Your task to perform on an android device: move a message to another label in the gmail app Image 0: 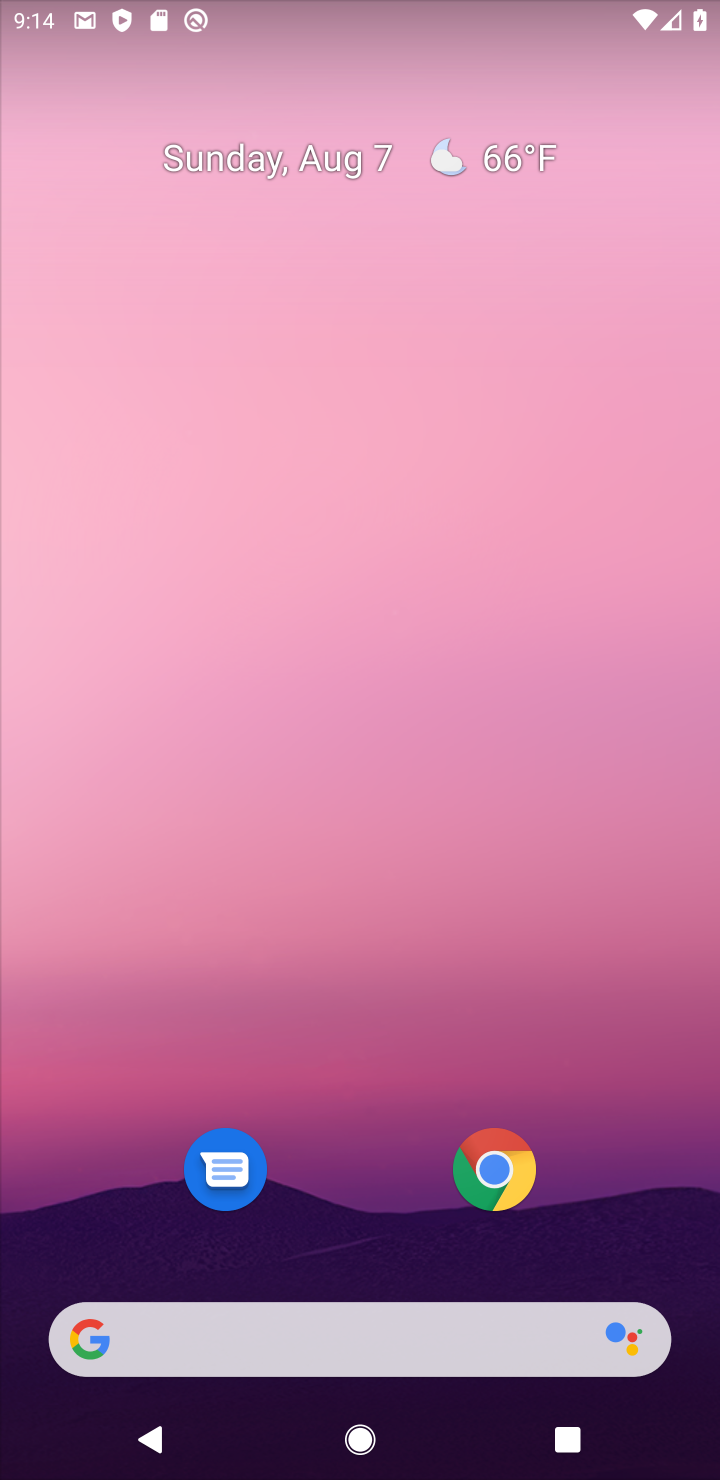
Step 0: drag from (408, 1247) to (258, 206)
Your task to perform on an android device: move a message to another label in the gmail app Image 1: 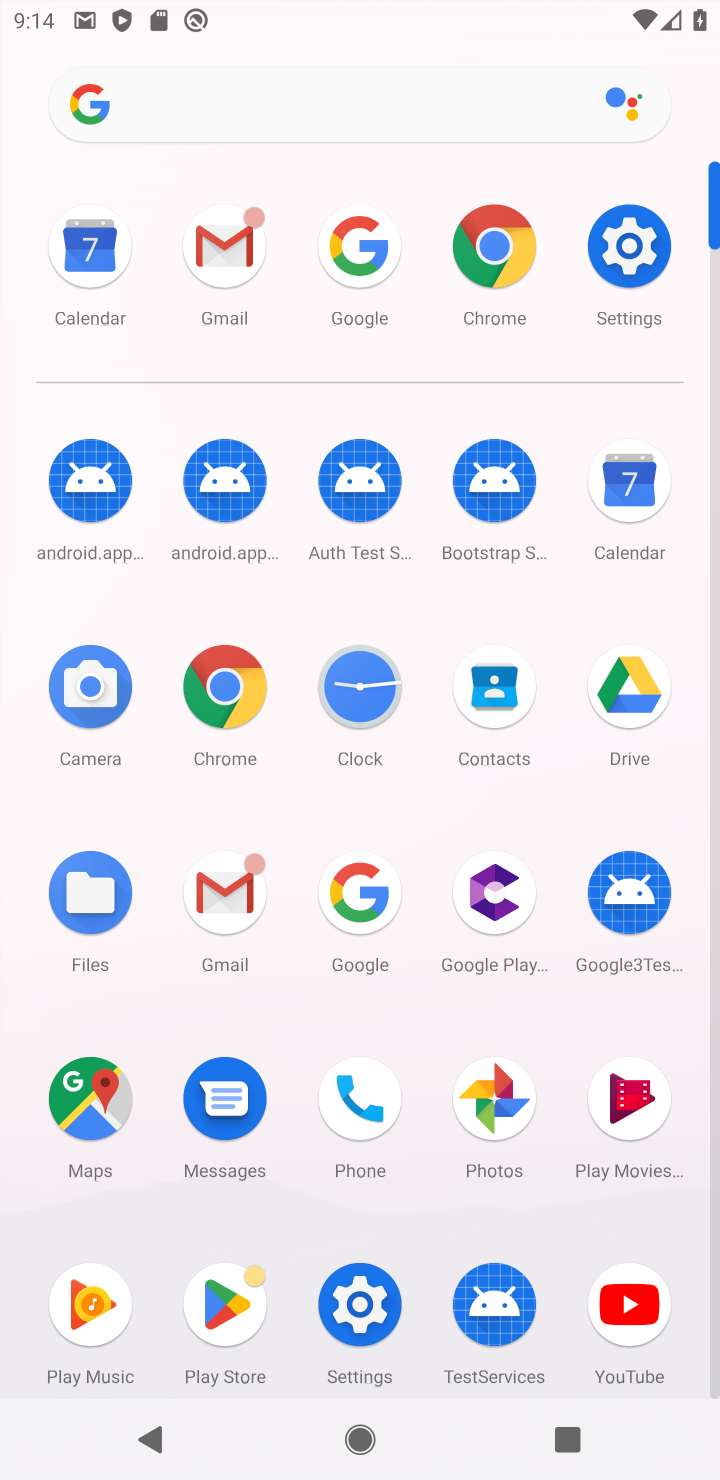
Step 1: click (214, 867)
Your task to perform on an android device: move a message to another label in the gmail app Image 2: 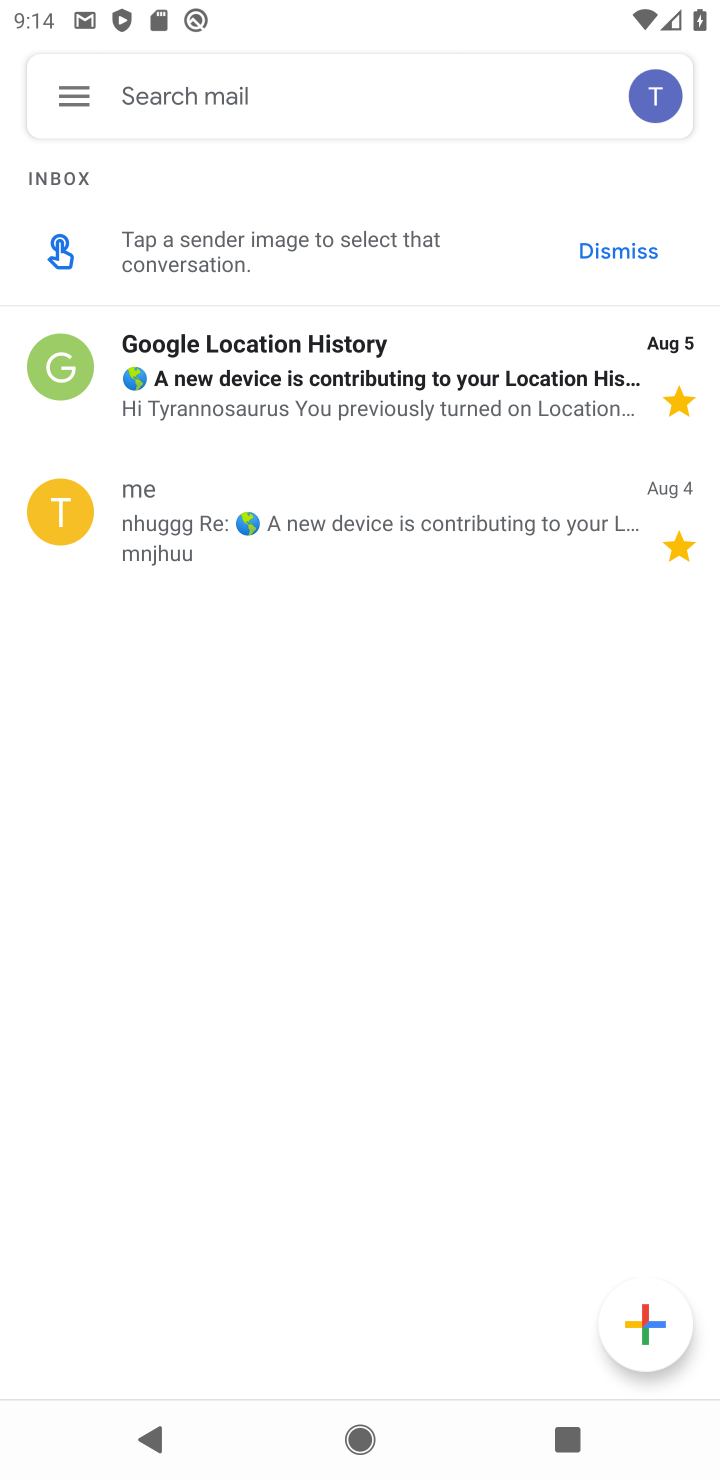
Step 2: click (272, 418)
Your task to perform on an android device: move a message to another label in the gmail app Image 3: 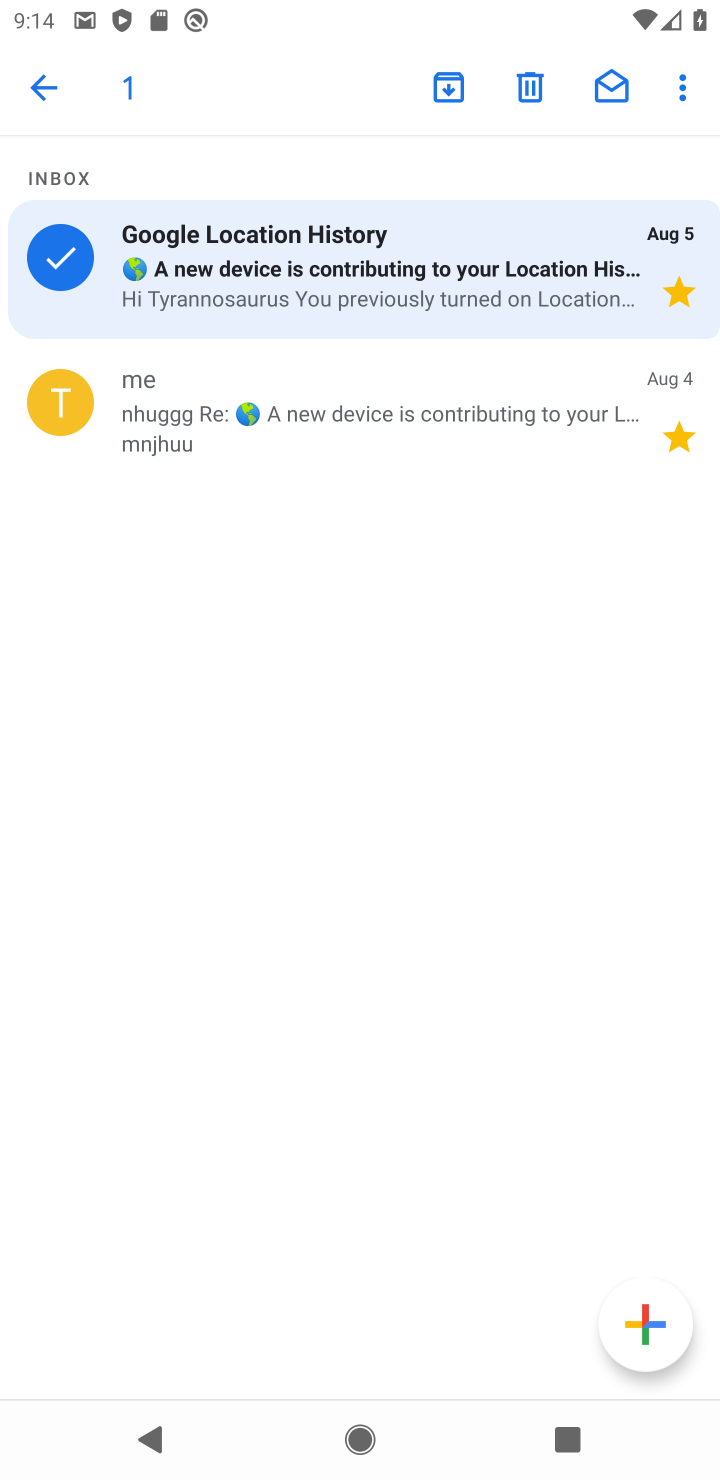
Step 3: click (679, 116)
Your task to perform on an android device: move a message to another label in the gmail app Image 4: 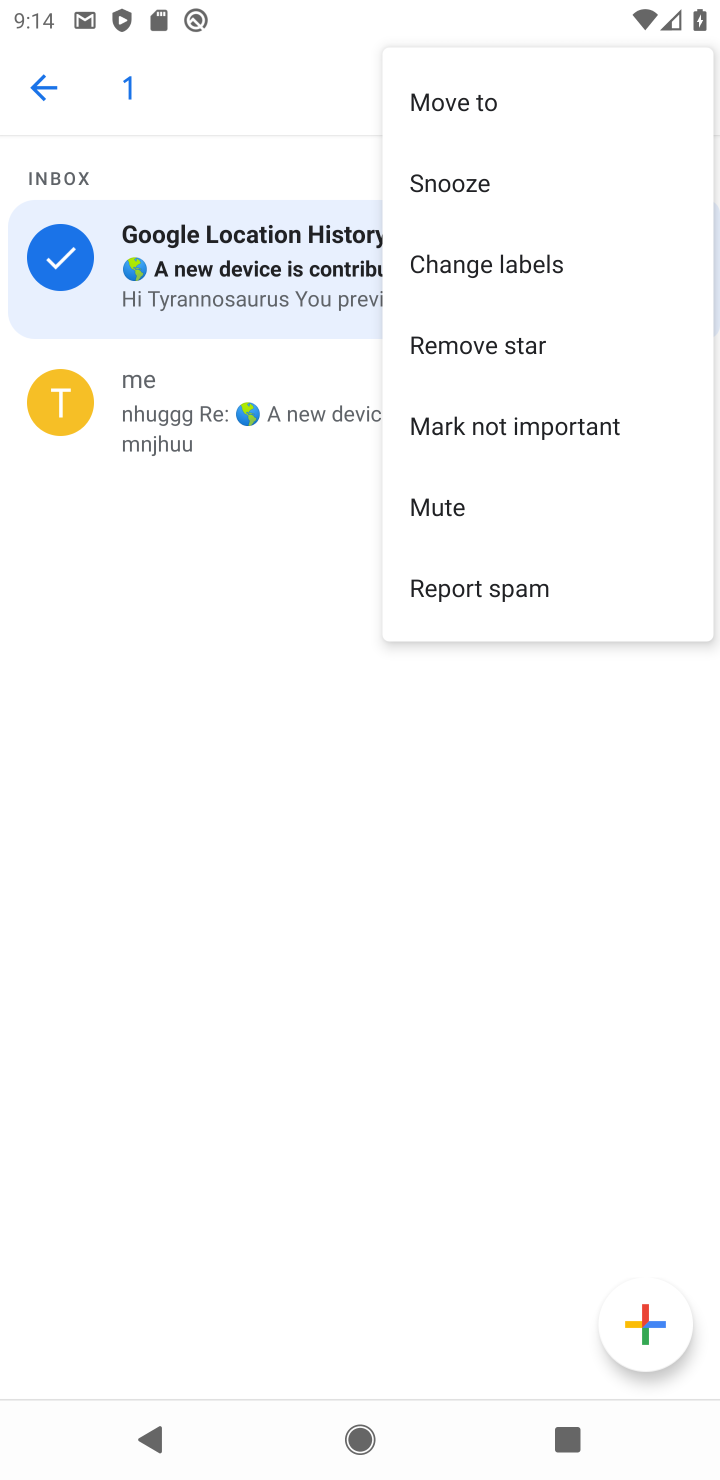
Step 4: click (459, 100)
Your task to perform on an android device: move a message to another label in the gmail app Image 5: 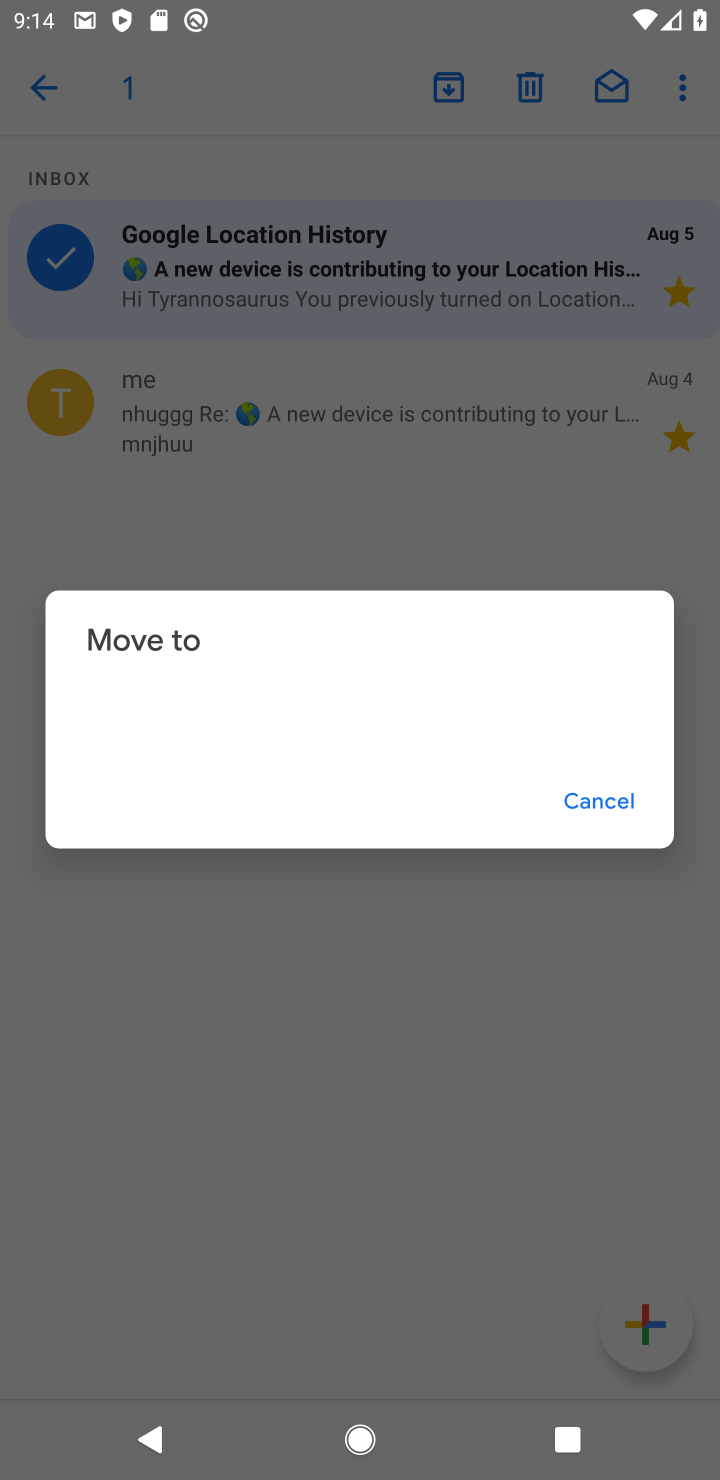
Step 5: task complete